Your task to perform on an android device: Search for jbl flip 4 on amazon, select the first entry, add it to the cart, then select checkout. Image 0: 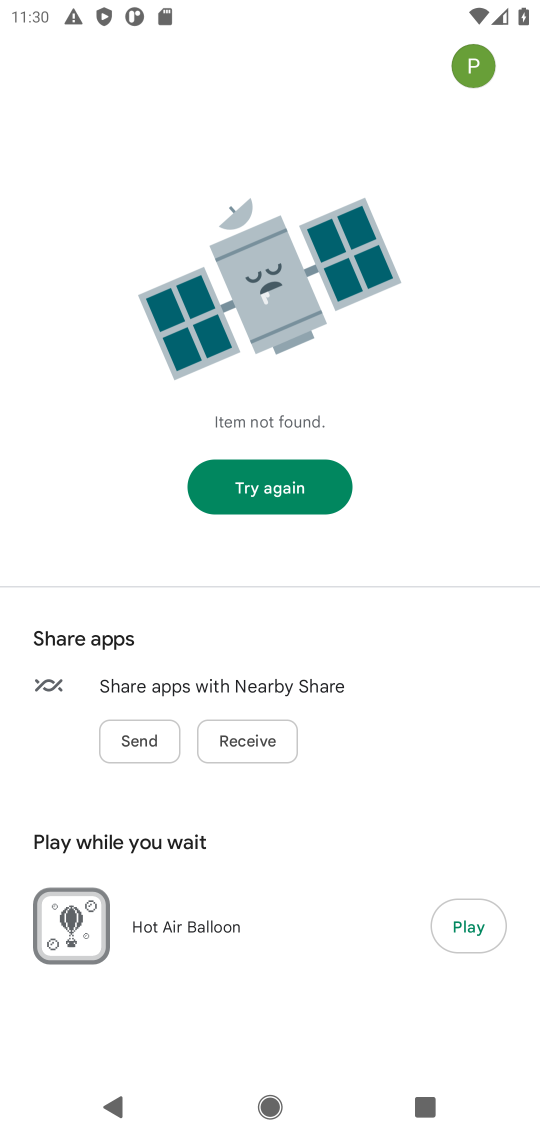
Step 0: press home button
Your task to perform on an android device: Search for jbl flip 4 on amazon, select the first entry, add it to the cart, then select checkout. Image 1: 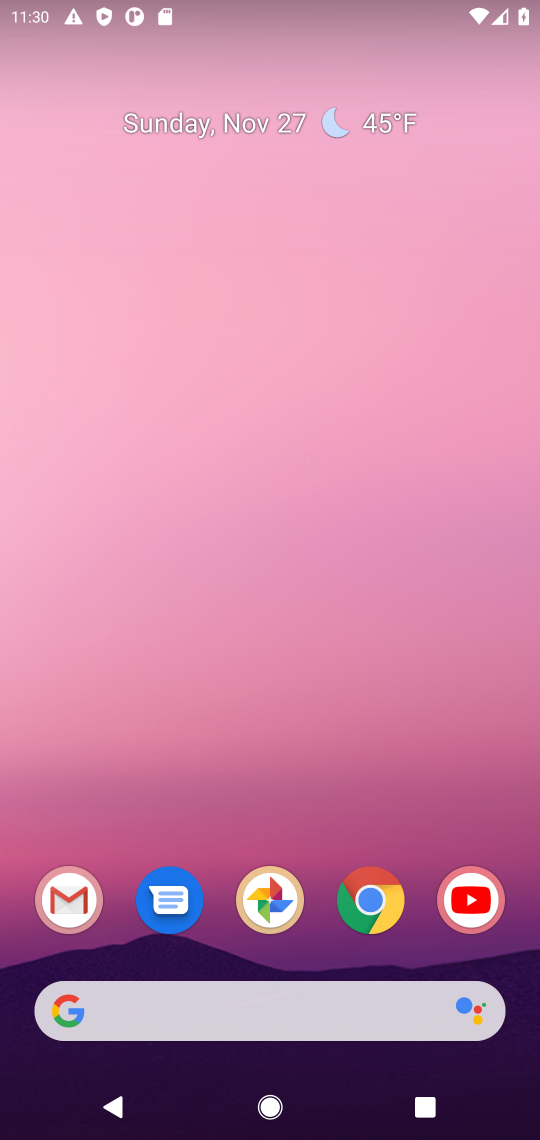
Step 1: click (371, 904)
Your task to perform on an android device: Search for jbl flip 4 on amazon, select the first entry, add it to the cart, then select checkout. Image 2: 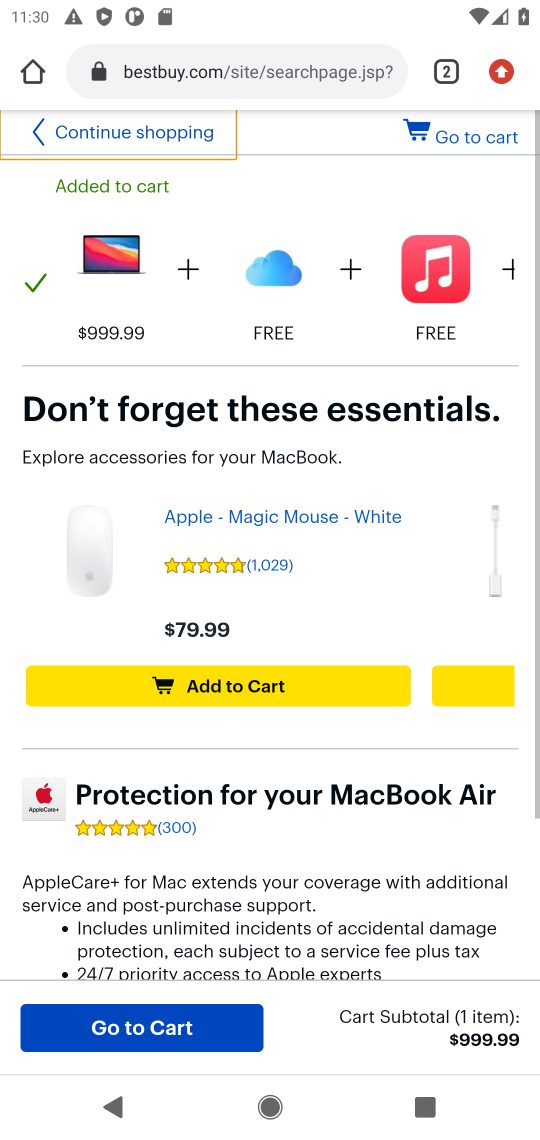
Step 2: click (228, 70)
Your task to perform on an android device: Search for jbl flip 4 on amazon, select the first entry, add it to the cart, then select checkout. Image 3: 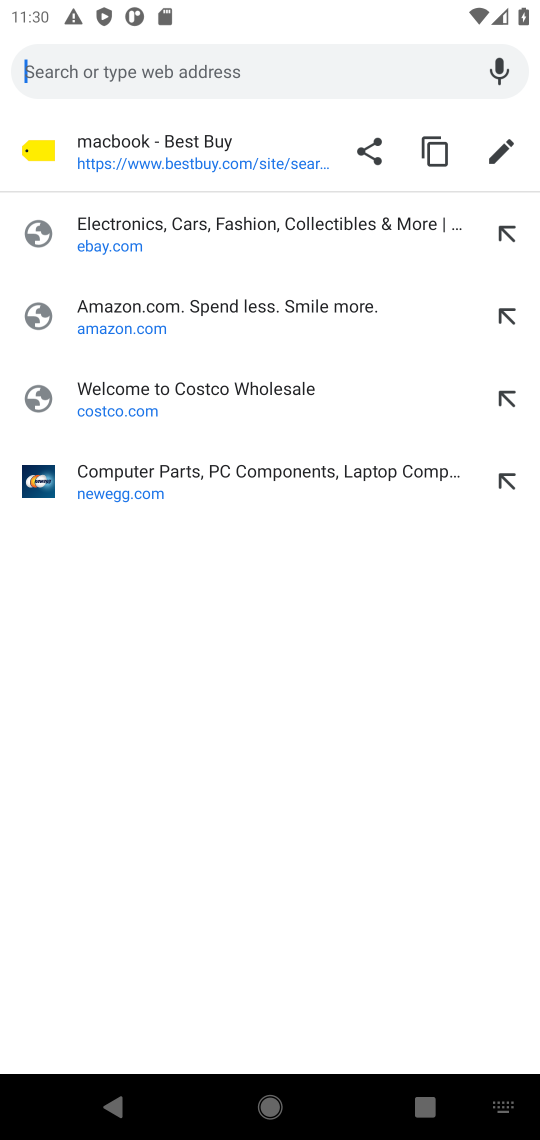
Step 3: click (111, 328)
Your task to perform on an android device: Search for jbl flip 4 on amazon, select the first entry, add it to the cart, then select checkout. Image 4: 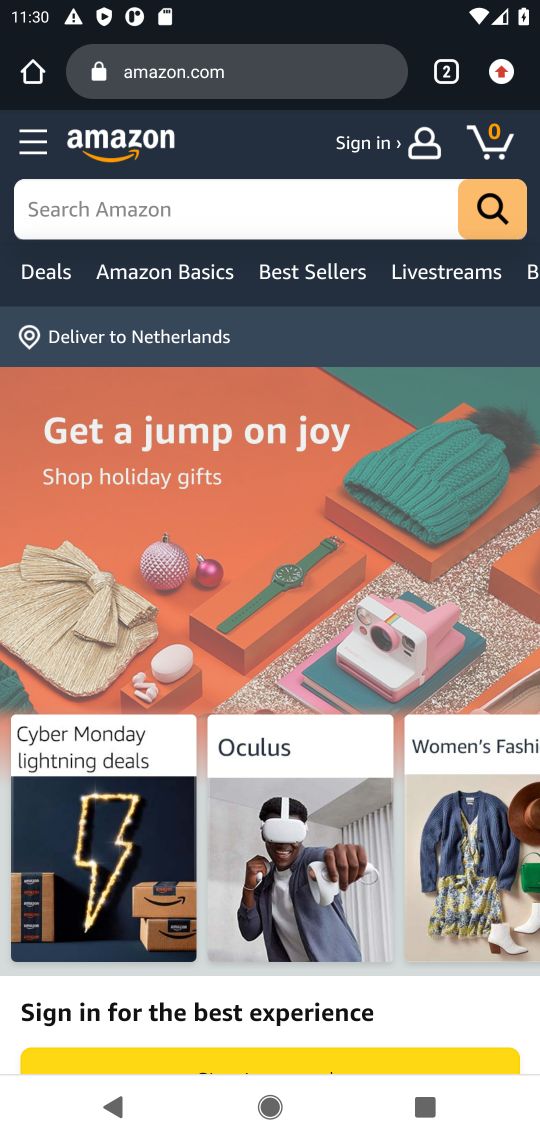
Step 4: click (133, 226)
Your task to perform on an android device: Search for jbl flip 4 on amazon, select the first entry, add it to the cart, then select checkout. Image 5: 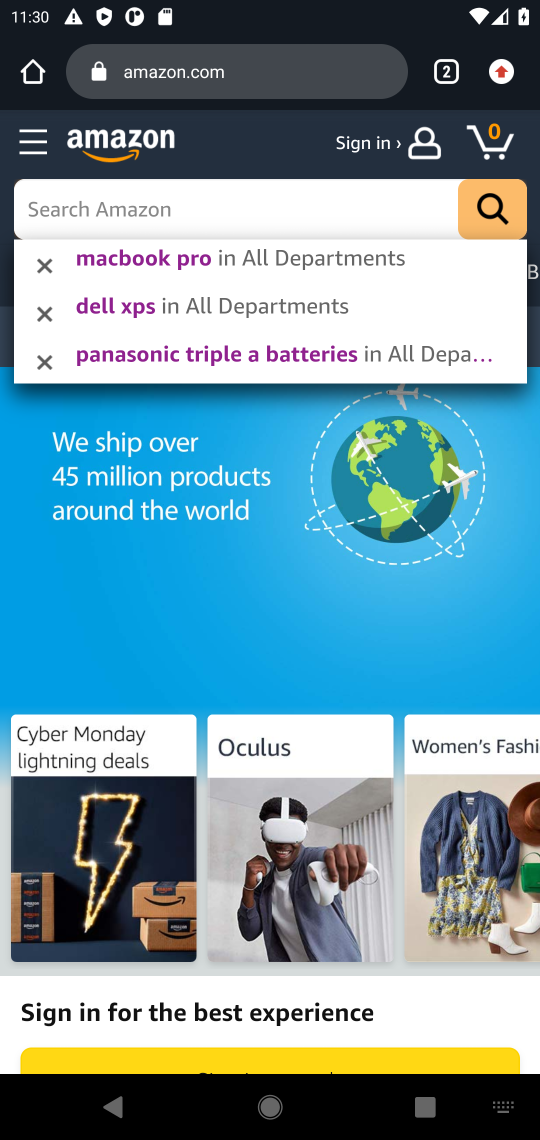
Step 5: type "jbl flip 4"
Your task to perform on an android device: Search for jbl flip 4 on amazon, select the first entry, add it to the cart, then select checkout. Image 6: 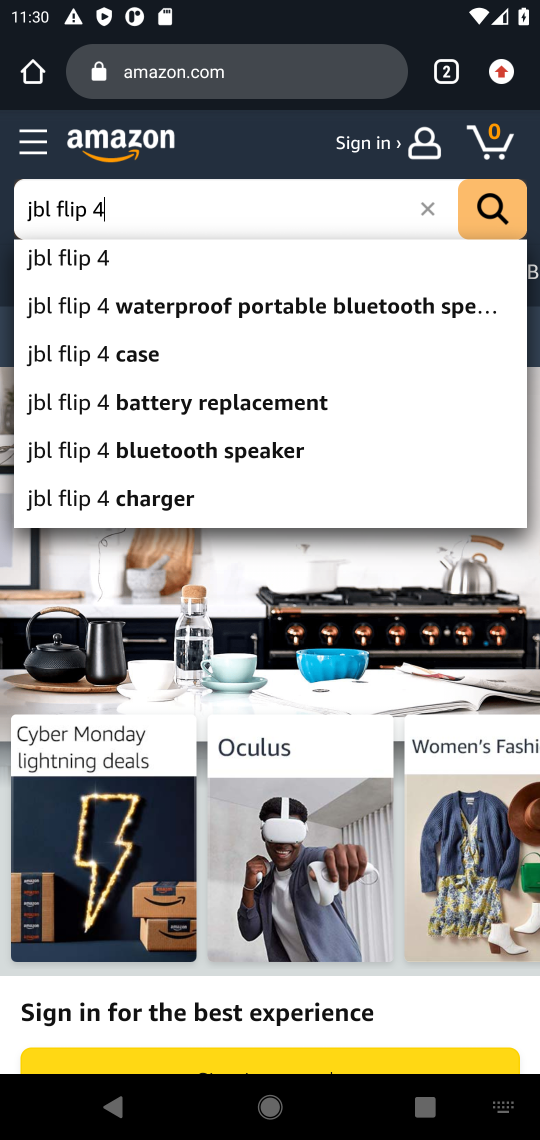
Step 6: click (62, 254)
Your task to perform on an android device: Search for jbl flip 4 on amazon, select the first entry, add it to the cart, then select checkout. Image 7: 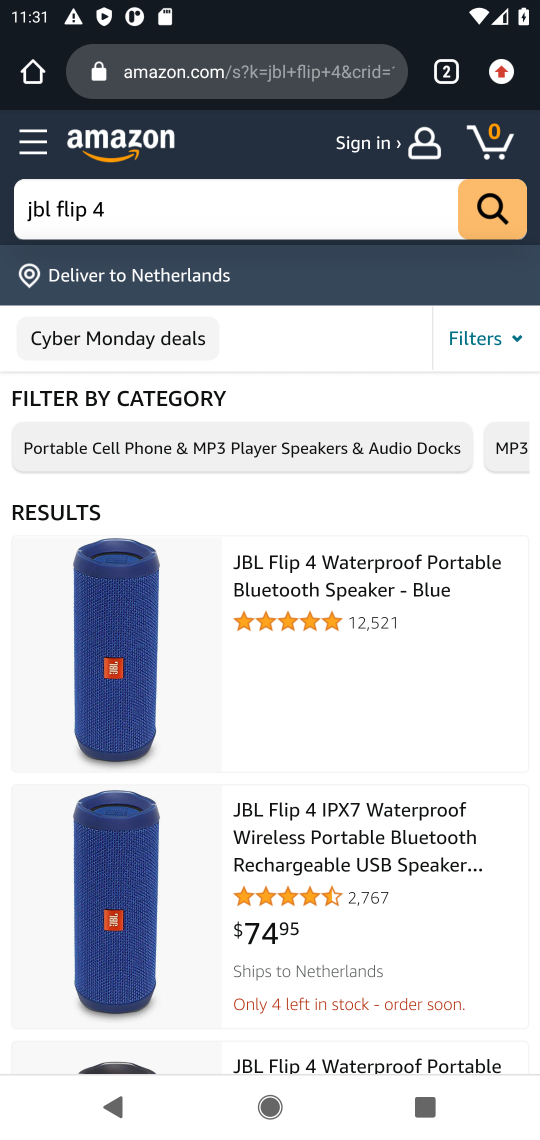
Step 7: drag from (312, 652) to (329, 422)
Your task to perform on an android device: Search for jbl flip 4 on amazon, select the first entry, add it to the cart, then select checkout. Image 8: 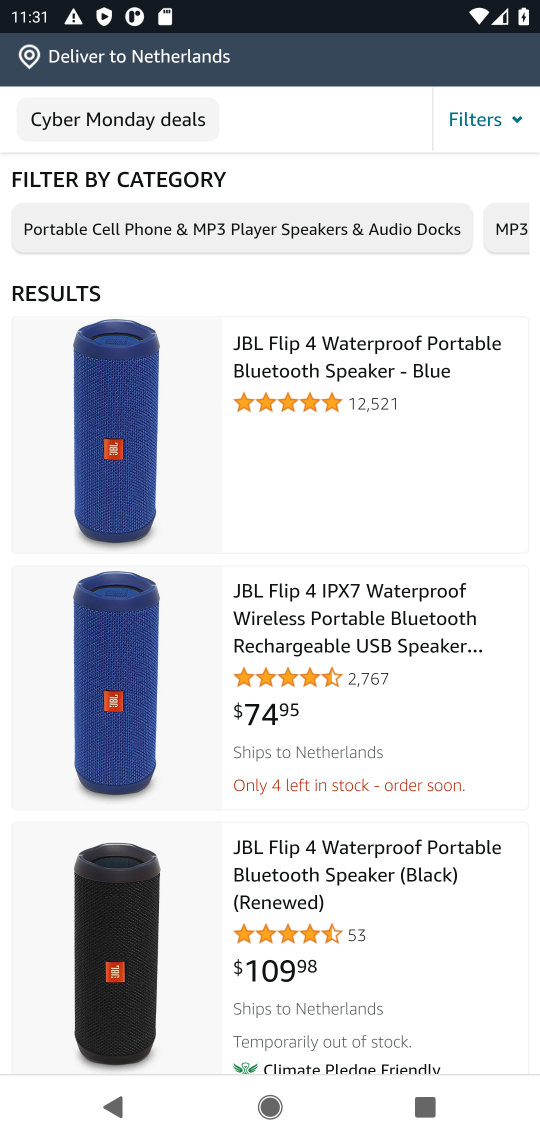
Step 8: click (270, 389)
Your task to perform on an android device: Search for jbl flip 4 on amazon, select the first entry, add it to the cart, then select checkout. Image 9: 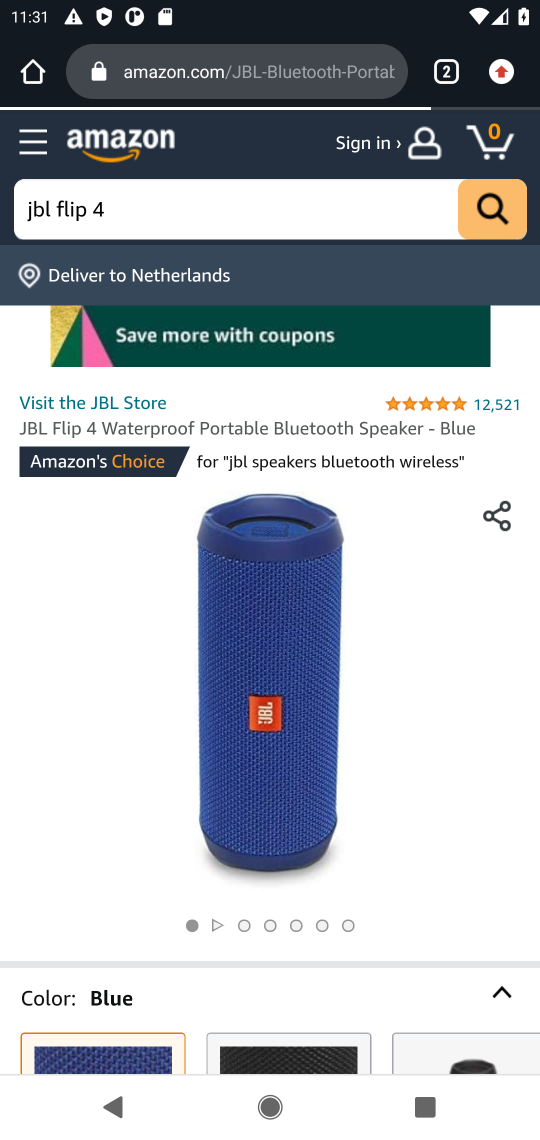
Step 9: drag from (325, 753) to (326, 298)
Your task to perform on an android device: Search for jbl flip 4 on amazon, select the first entry, add it to the cart, then select checkout. Image 10: 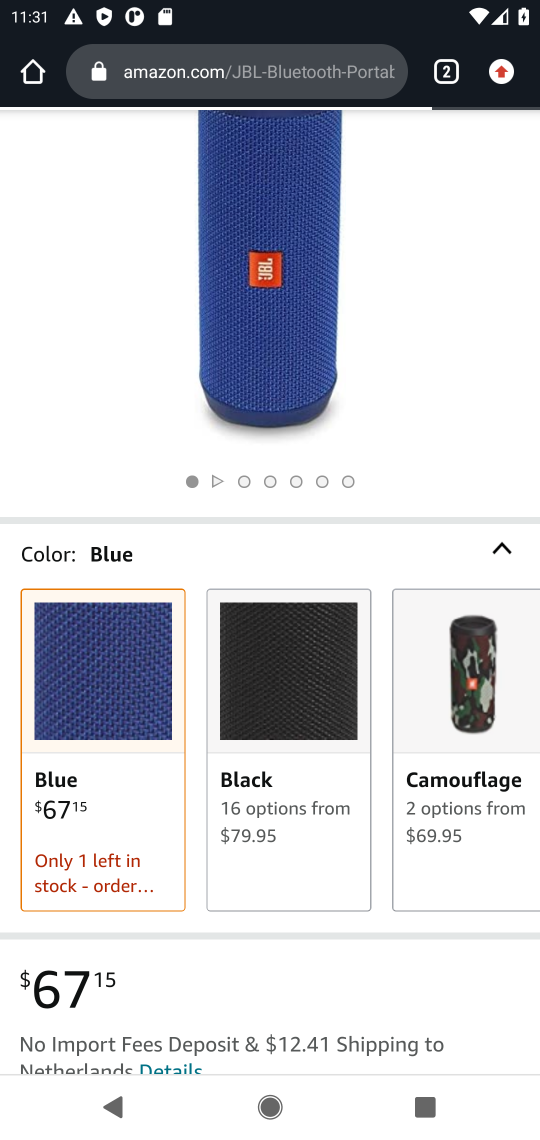
Step 10: drag from (294, 893) to (323, 346)
Your task to perform on an android device: Search for jbl flip 4 on amazon, select the first entry, add it to the cart, then select checkout. Image 11: 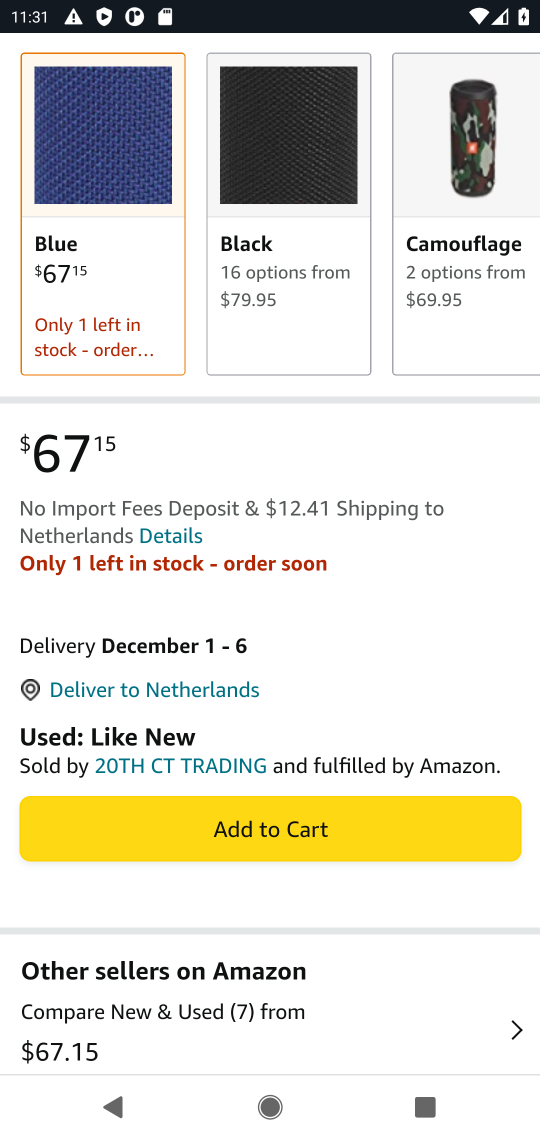
Step 11: click (231, 830)
Your task to perform on an android device: Search for jbl flip 4 on amazon, select the first entry, add it to the cart, then select checkout. Image 12: 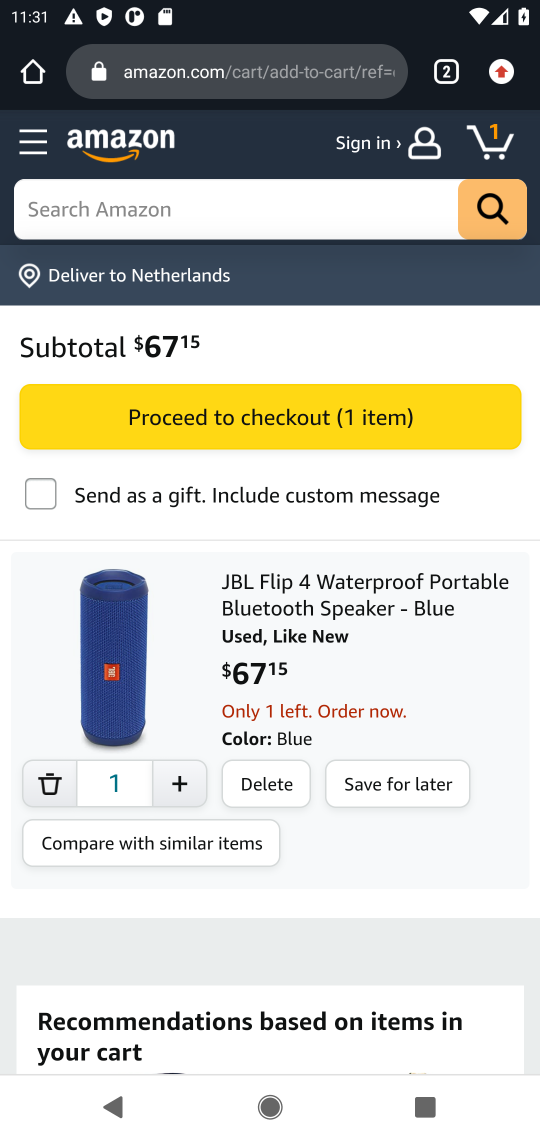
Step 12: click (236, 423)
Your task to perform on an android device: Search for jbl flip 4 on amazon, select the first entry, add it to the cart, then select checkout. Image 13: 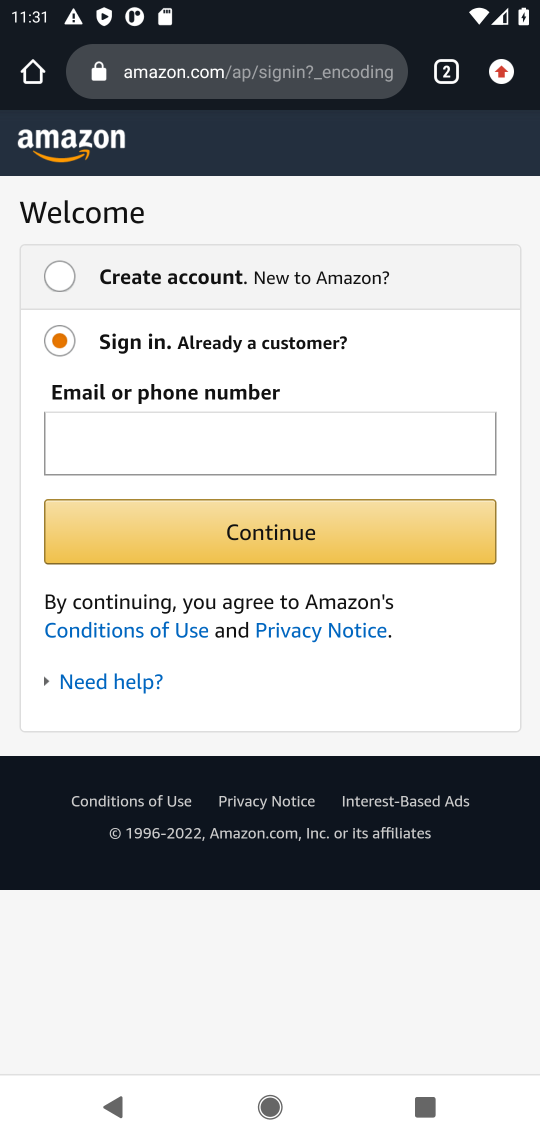
Step 13: task complete